Your task to perform on an android device: Go to accessibility settings Image 0: 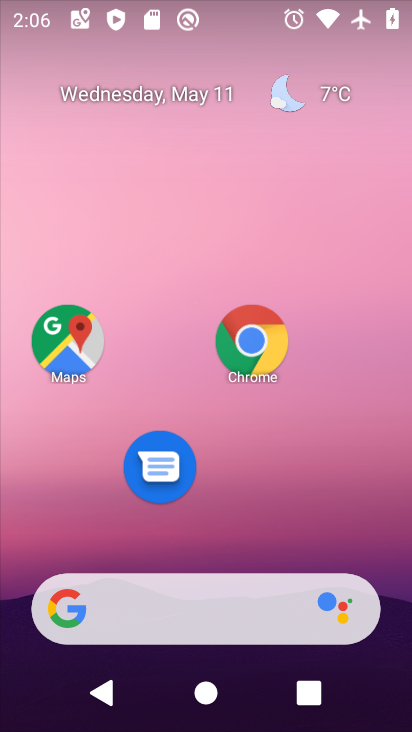
Step 0: drag from (207, 621) to (318, 36)
Your task to perform on an android device: Go to accessibility settings Image 1: 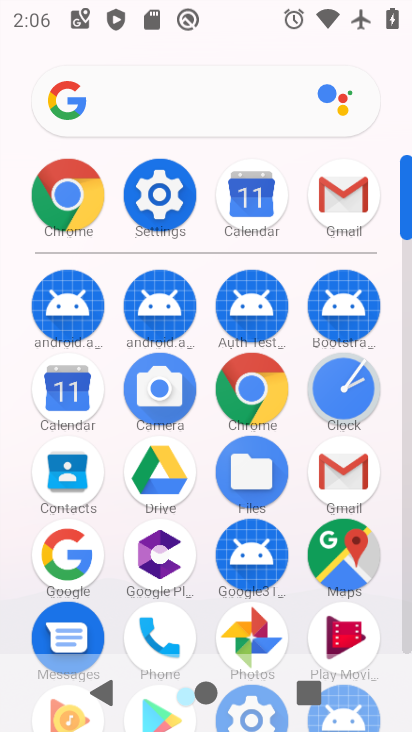
Step 1: click (164, 209)
Your task to perform on an android device: Go to accessibility settings Image 2: 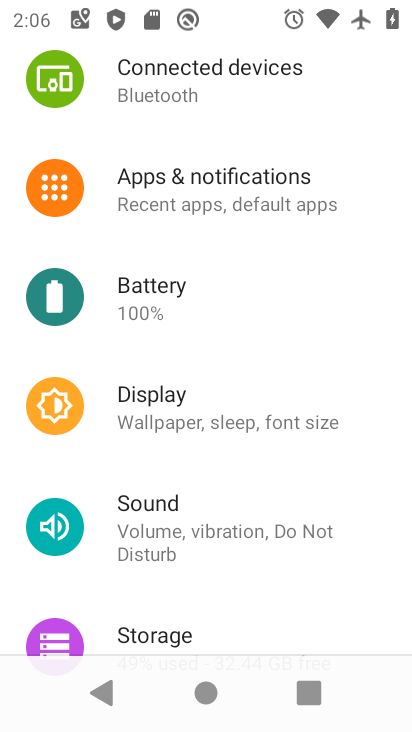
Step 2: drag from (216, 599) to (336, 89)
Your task to perform on an android device: Go to accessibility settings Image 3: 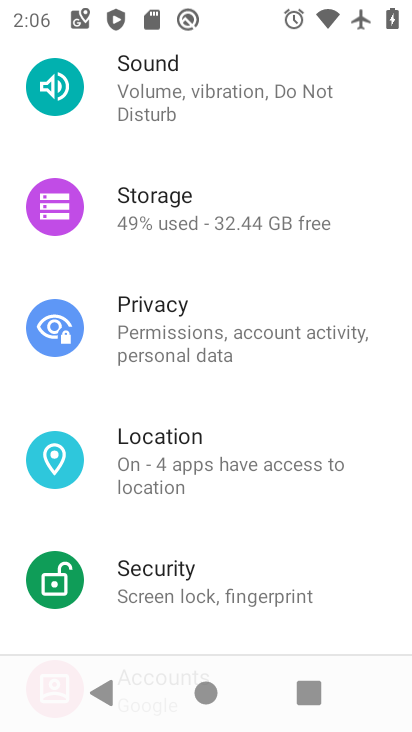
Step 3: drag from (210, 568) to (302, 232)
Your task to perform on an android device: Go to accessibility settings Image 4: 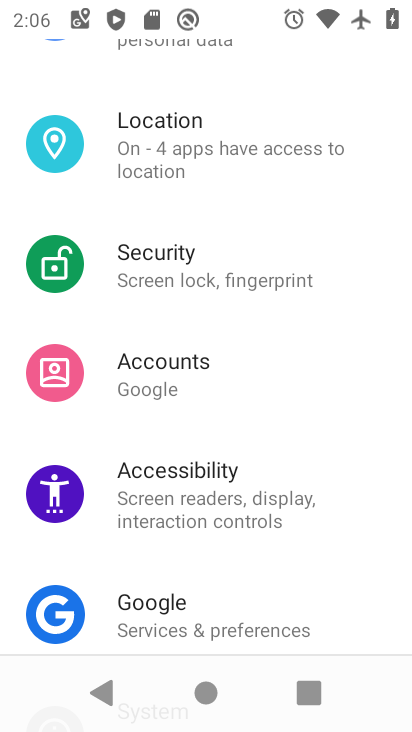
Step 4: click (208, 496)
Your task to perform on an android device: Go to accessibility settings Image 5: 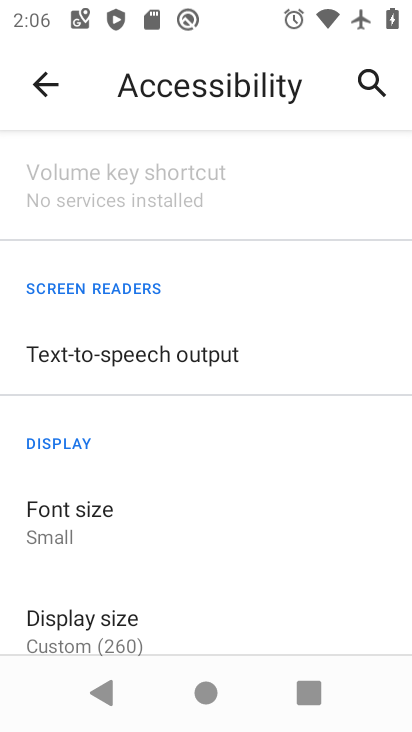
Step 5: task complete